Your task to perform on an android device: Check the news Image 0: 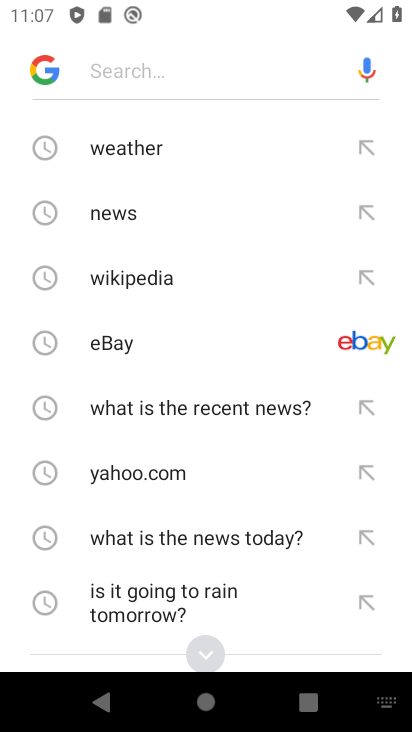
Step 0: click (138, 211)
Your task to perform on an android device: Check the news Image 1: 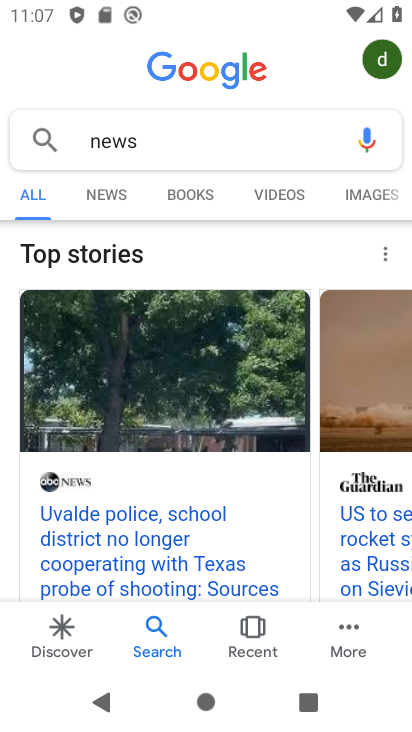
Step 1: task complete